Your task to perform on an android device: Turn on the flashlight Image 0: 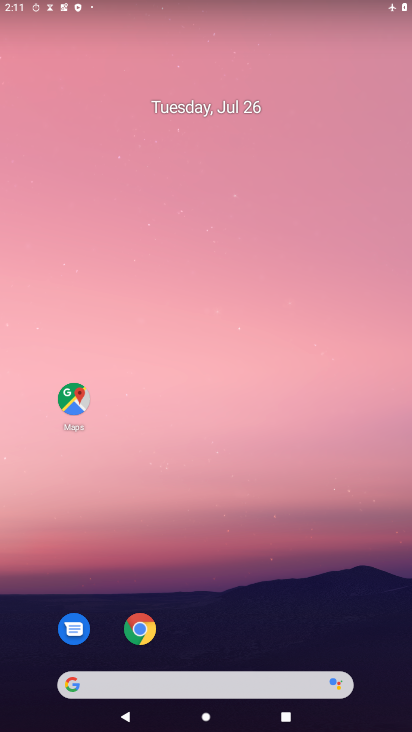
Step 0: drag from (217, 7) to (203, 637)
Your task to perform on an android device: Turn on the flashlight Image 1: 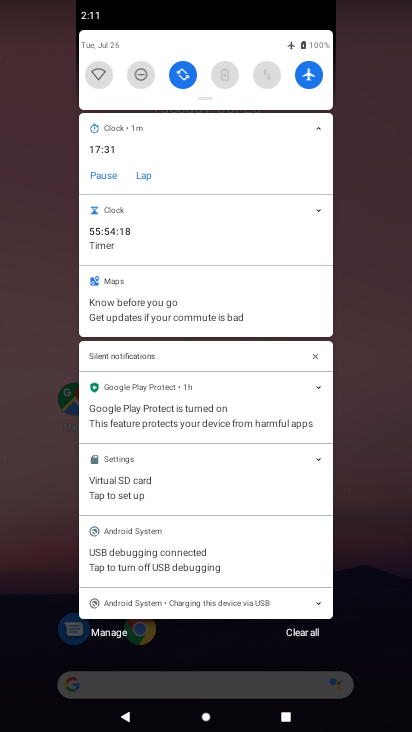
Step 1: task complete